Your task to perform on an android device: delete the emails in spam in the gmail app Image 0: 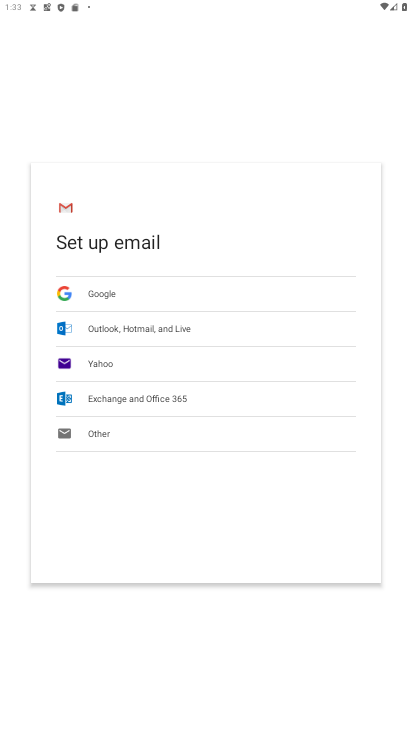
Step 0: press home button
Your task to perform on an android device: delete the emails in spam in the gmail app Image 1: 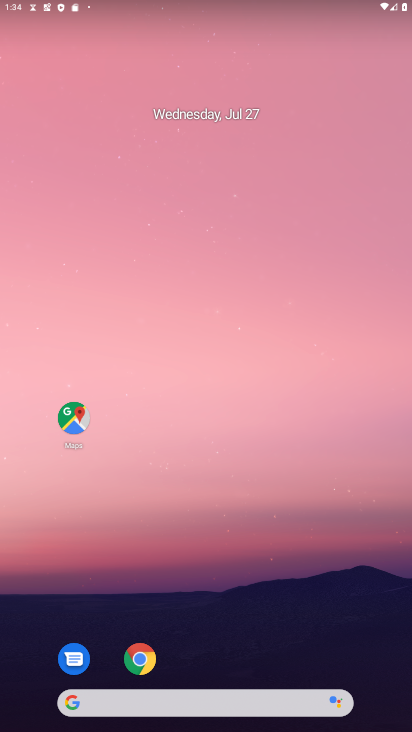
Step 1: drag from (212, 661) to (51, 12)
Your task to perform on an android device: delete the emails in spam in the gmail app Image 2: 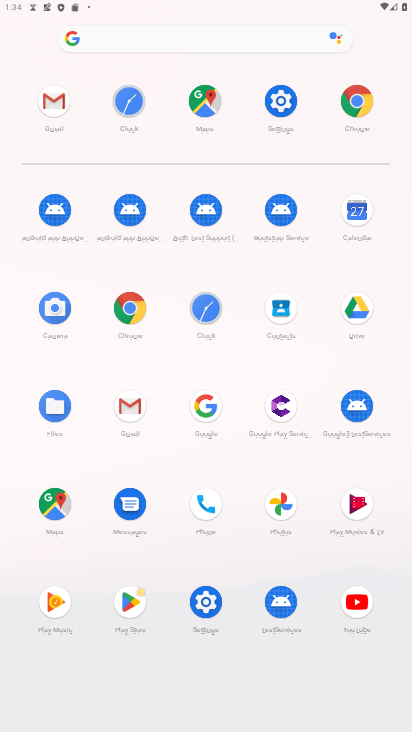
Step 2: click (133, 394)
Your task to perform on an android device: delete the emails in spam in the gmail app Image 3: 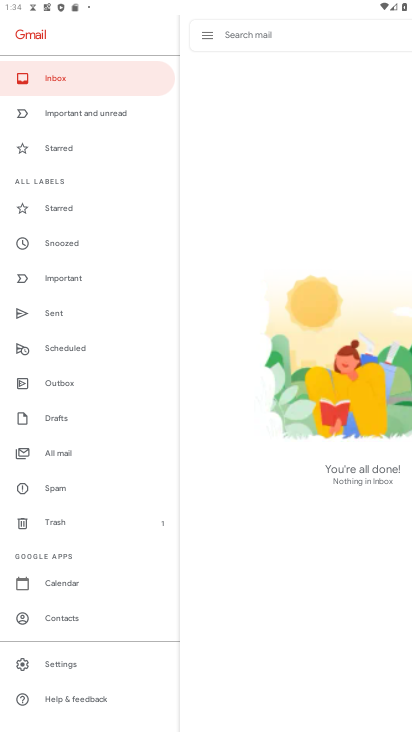
Step 3: click (68, 486)
Your task to perform on an android device: delete the emails in spam in the gmail app Image 4: 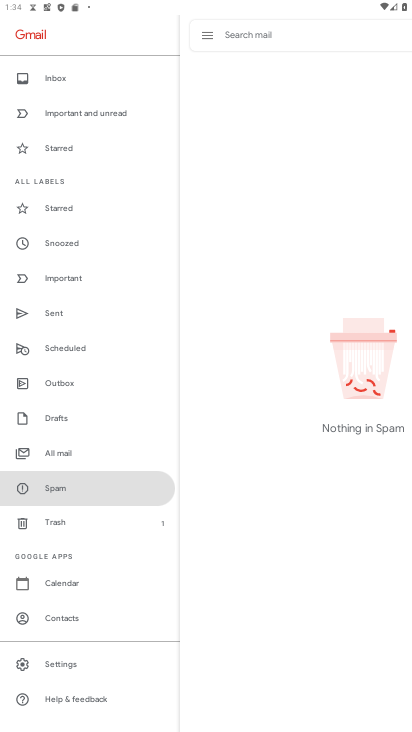
Step 4: task complete